Your task to perform on an android device: Open notification settings Image 0: 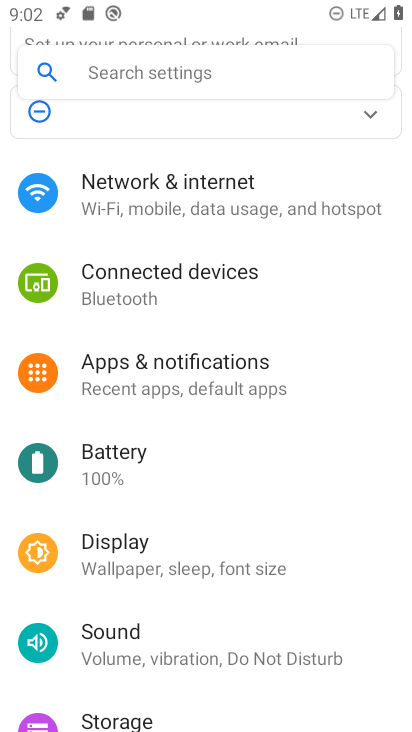
Step 0: press home button
Your task to perform on an android device: Open notification settings Image 1: 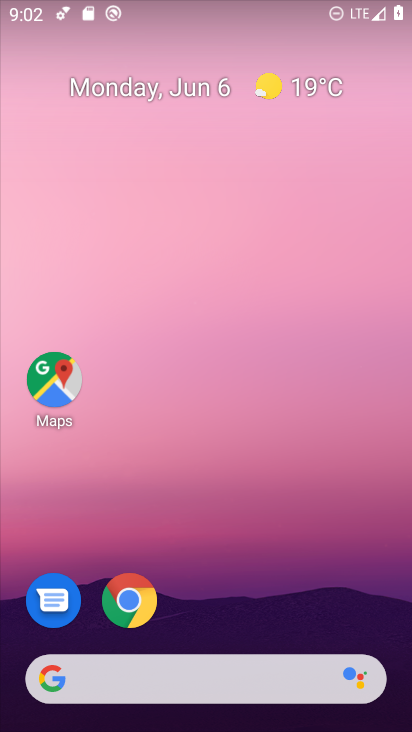
Step 1: drag from (310, 568) to (191, 20)
Your task to perform on an android device: Open notification settings Image 2: 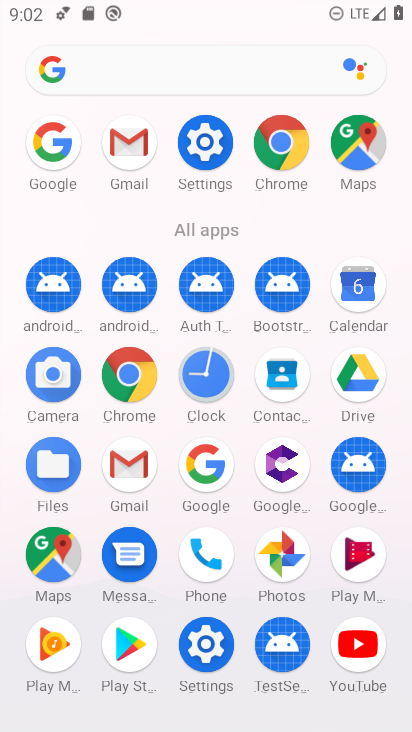
Step 2: click (200, 148)
Your task to perform on an android device: Open notification settings Image 3: 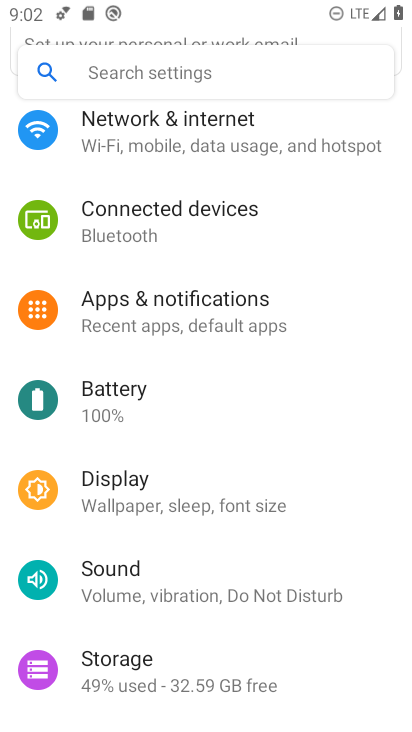
Step 3: click (224, 314)
Your task to perform on an android device: Open notification settings Image 4: 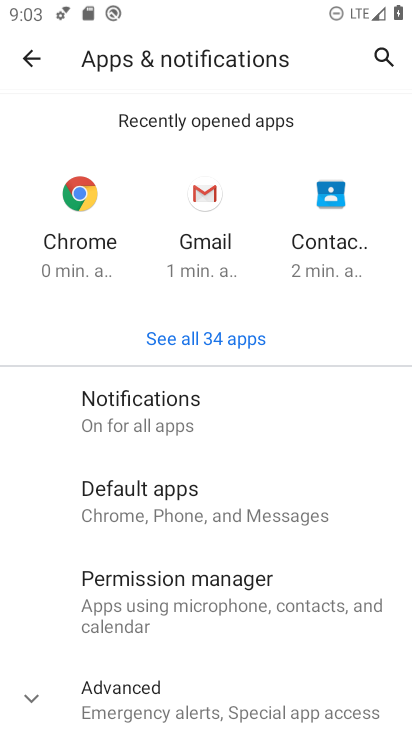
Step 4: task complete